Your task to perform on an android device: change timer sound Image 0: 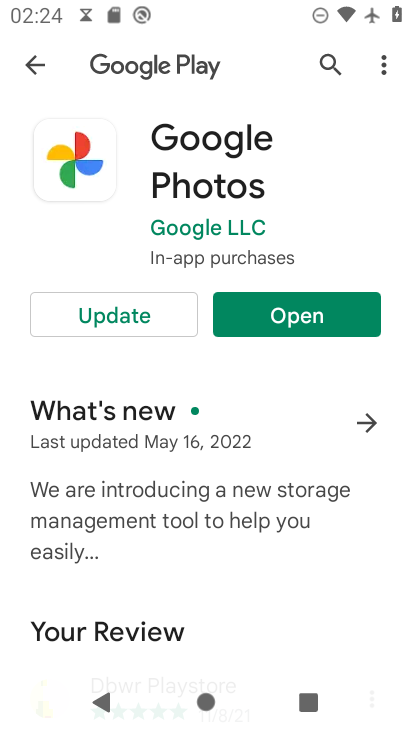
Step 0: press home button
Your task to perform on an android device: change timer sound Image 1: 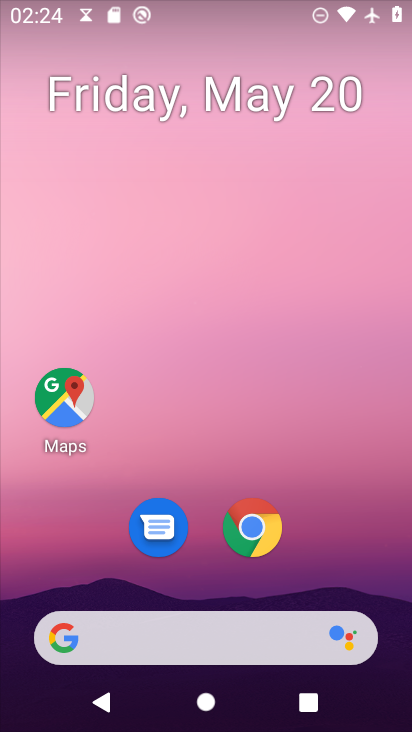
Step 1: drag from (146, 653) to (279, 125)
Your task to perform on an android device: change timer sound Image 2: 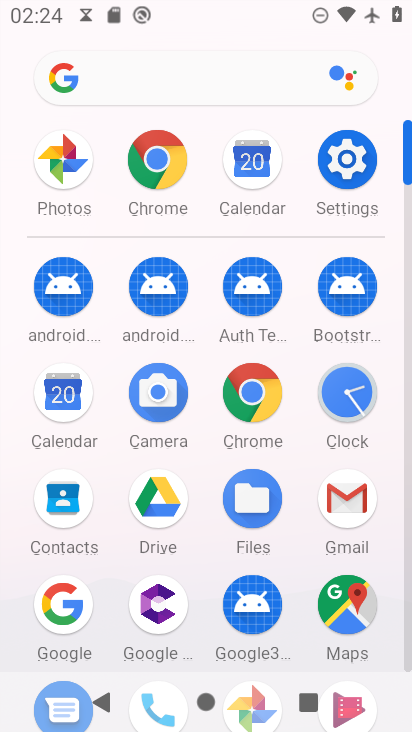
Step 2: click (355, 399)
Your task to perform on an android device: change timer sound Image 3: 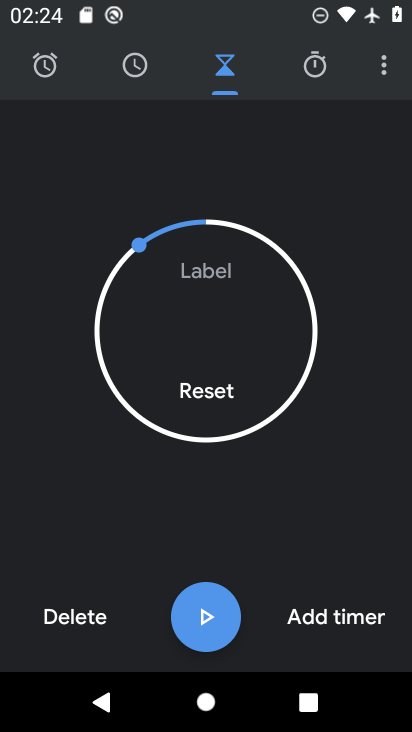
Step 3: click (381, 73)
Your task to perform on an android device: change timer sound Image 4: 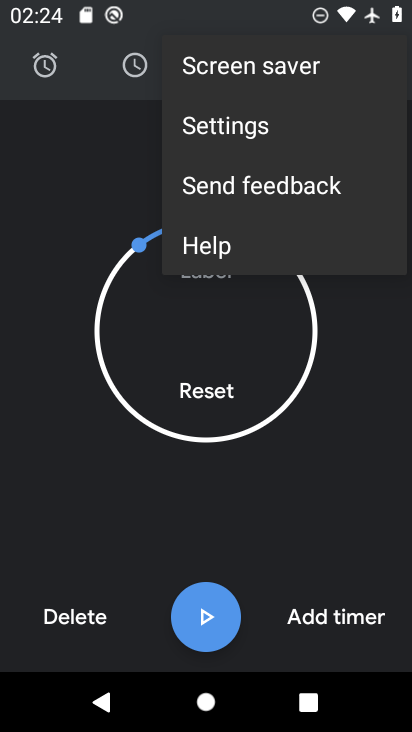
Step 4: click (224, 133)
Your task to perform on an android device: change timer sound Image 5: 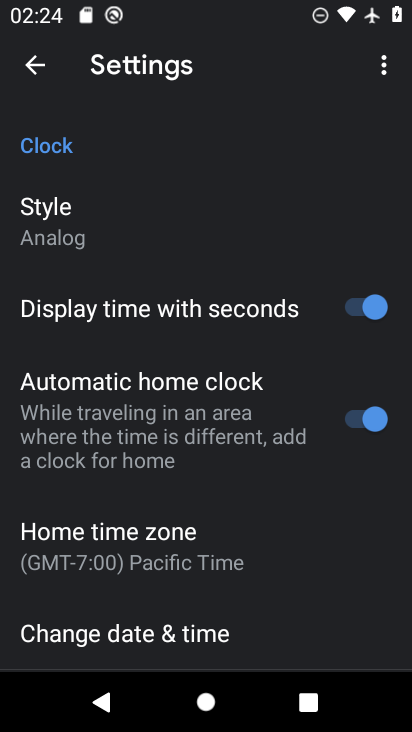
Step 5: drag from (270, 596) to (355, 113)
Your task to perform on an android device: change timer sound Image 6: 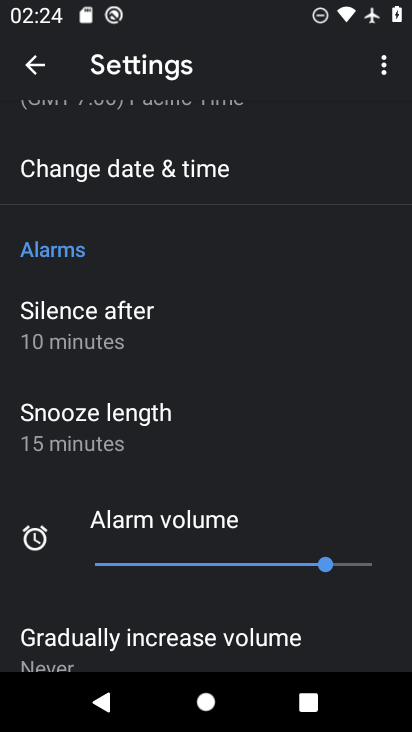
Step 6: drag from (222, 607) to (311, 162)
Your task to perform on an android device: change timer sound Image 7: 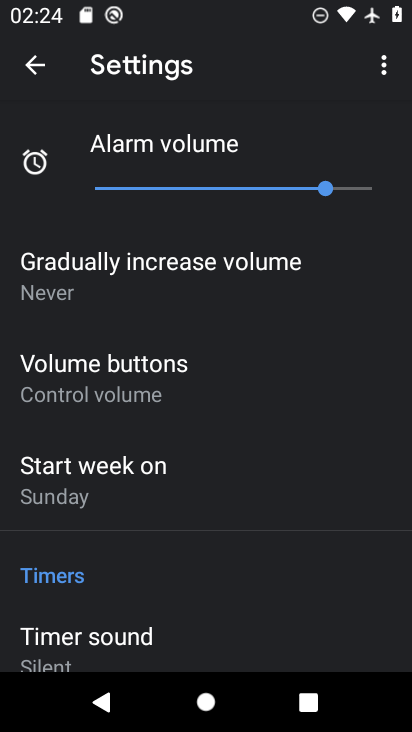
Step 7: drag from (214, 464) to (337, 109)
Your task to perform on an android device: change timer sound Image 8: 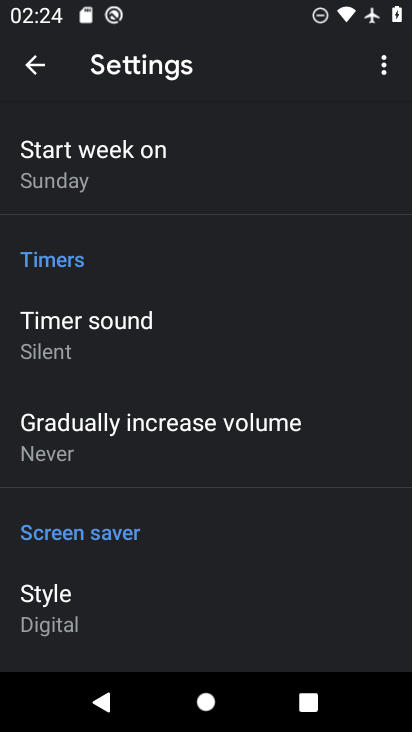
Step 8: click (94, 322)
Your task to perform on an android device: change timer sound Image 9: 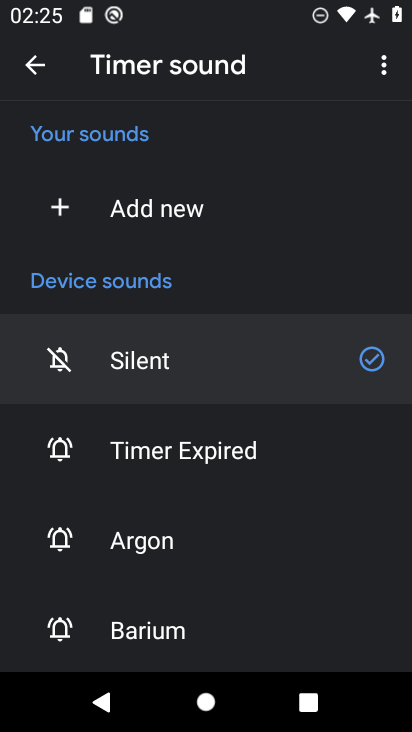
Step 9: click (138, 546)
Your task to perform on an android device: change timer sound Image 10: 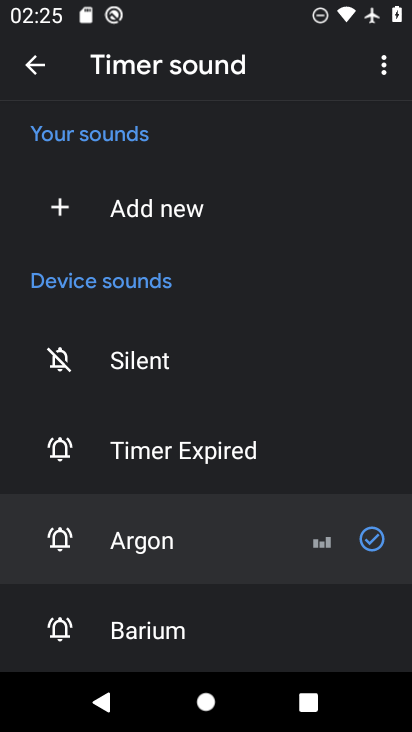
Step 10: task complete